Your task to perform on an android device: turn off picture-in-picture Image 0: 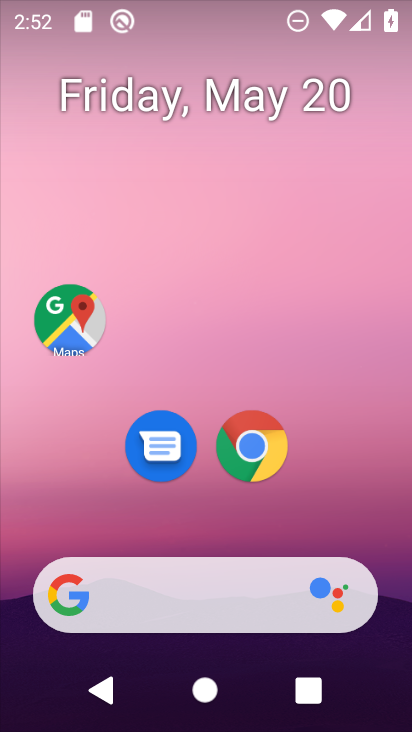
Step 0: click (259, 453)
Your task to perform on an android device: turn off picture-in-picture Image 1: 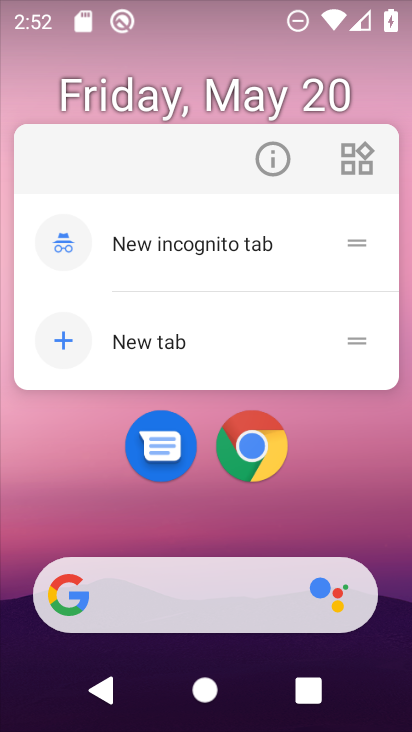
Step 1: click (276, 166)
Your task to perform on an android device: turn off picture-in-picture Image 2: 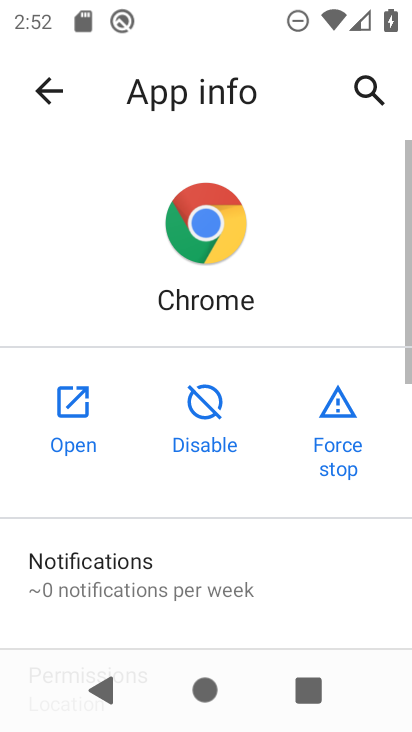
Step 2: drag from (231, 531) to (185, 109)
Your task to perform on an android device: turn off picture-in-picture Image 3: 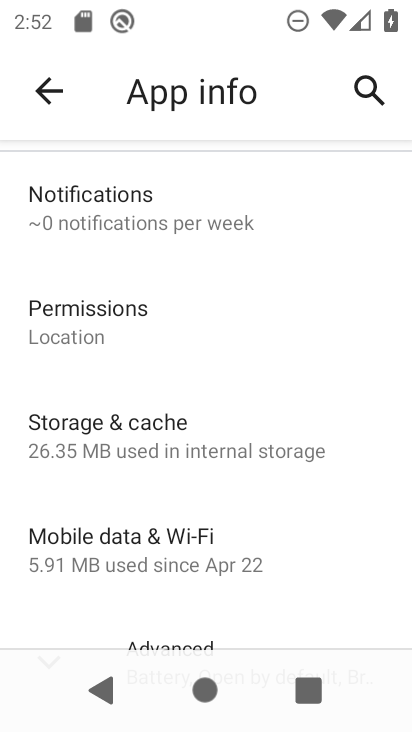
Step 3: drag from (164, 449) to (182, 66)
Your task to perform on an android device: turn off picture-in-picture Image 4: 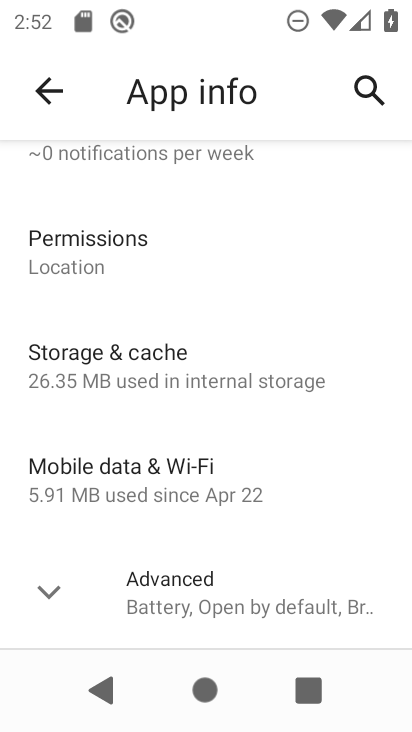
Step 4: click (50, 601)
Your task to perform on an android device: turn off picture-in-picture Image 5: 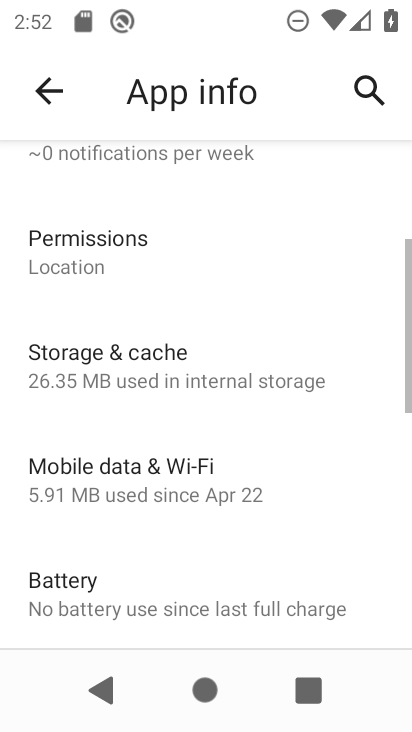
Step 5: drag from (168, 568) to (172, 62)
Your task to perform on an android device: turn off picture-in-picture Image 6: 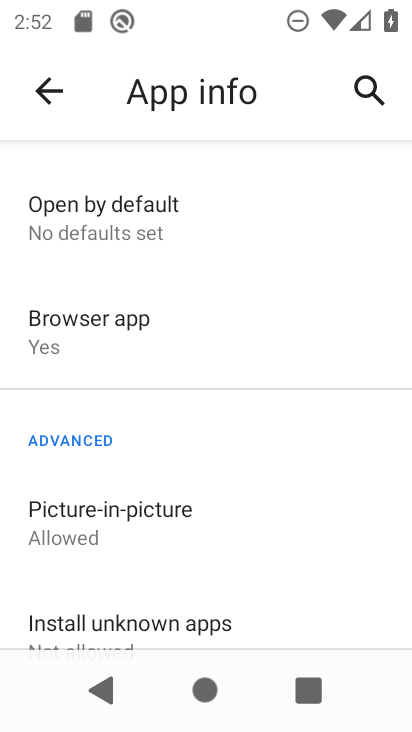
Step 6: click (103, 517)
Your task to perform on an android device: turn off picture-in-picture Image 7: 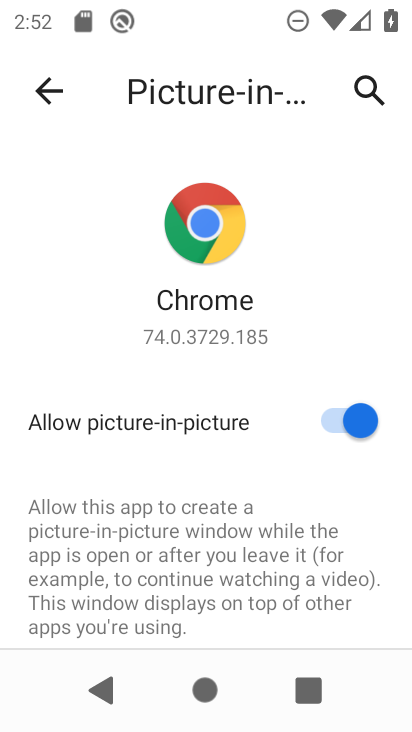
Step 7: click (366, 411)
Your task to perform on an android device: turn off picture-in-picture Image 8: 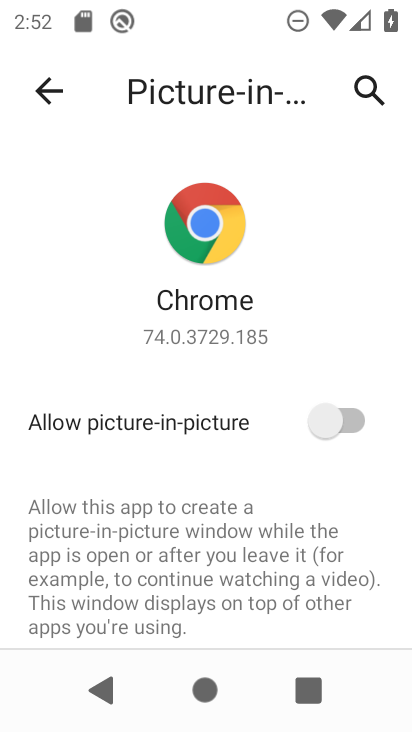
Step 8: task complete